Your task to perform on an android device: change the clock style Image 0: 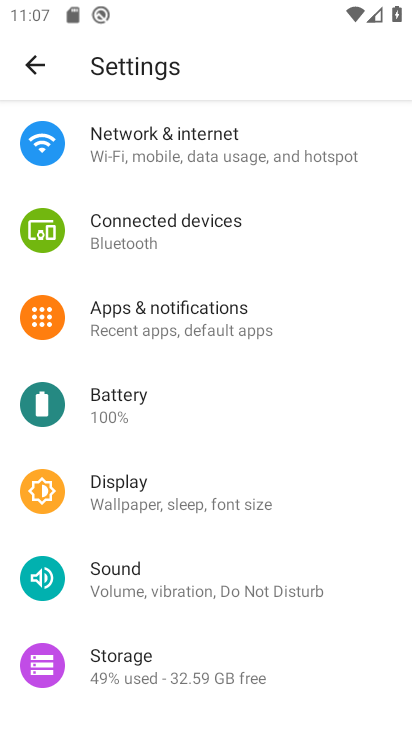
Step 0: press home button
Your task to perform on an android device: change the clock style Image 1: 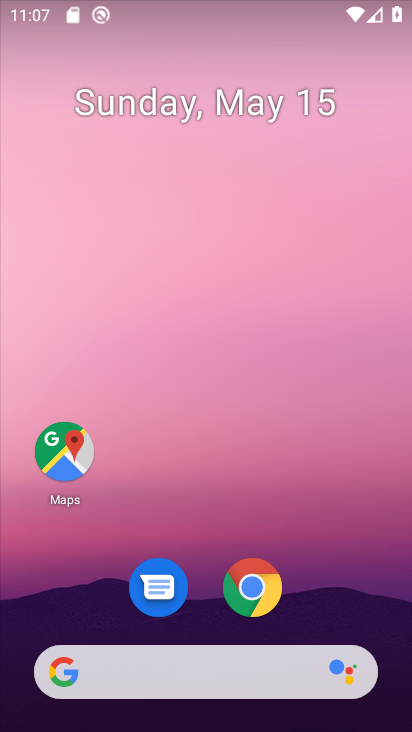
Step 1: drag from (201, 628) to (202, 248)
Your task to perform on an android device: change the clock style Image 2: 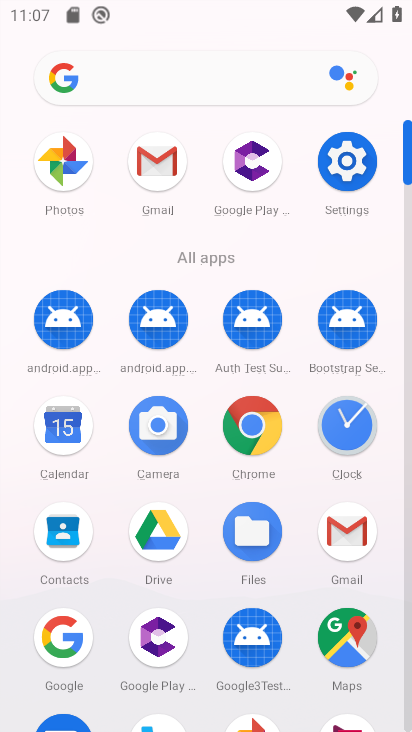
Step 2: click (353, 411)
Your task to perform on an android device: change the clock style Image 3: 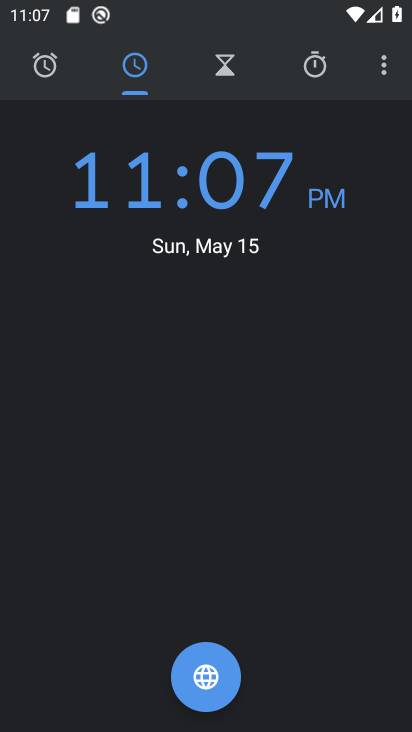
Step 3: click (389, 67)
Your task to perform on an android device: change the clock style Image 4: 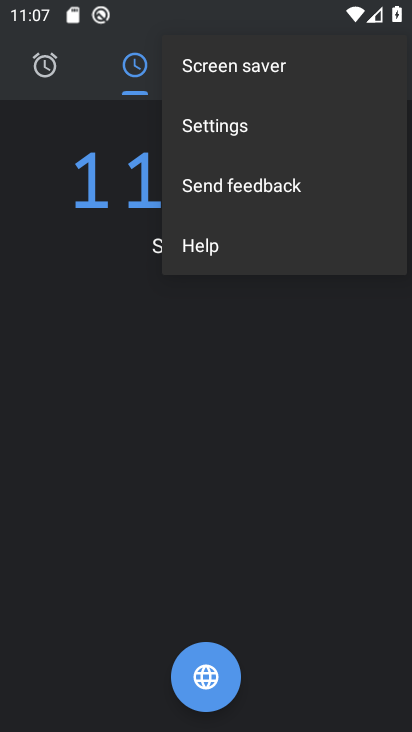
Step 4: click (230, 134)
Your task to perform on an android device: change the clock style Image 5: 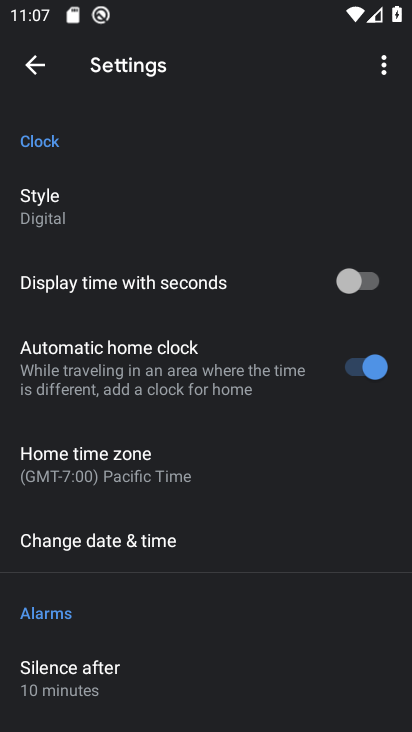
Step 5: click (32, 203)
Your task to perform on an android device: change the clock style Image 6: 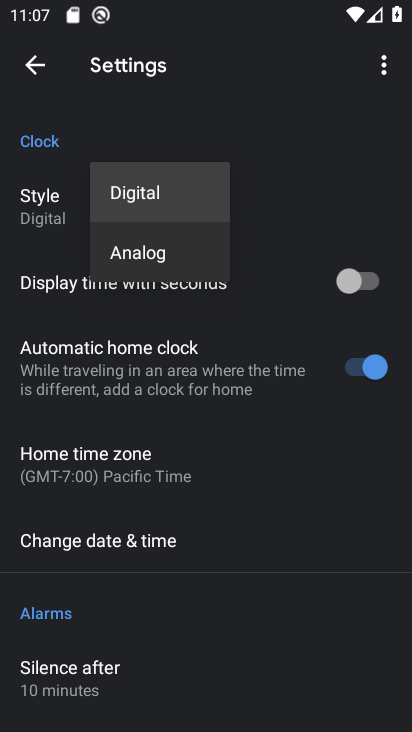
Step 6: click (114, 249)
Your task to perform on an android device: change the clock style Image 7: 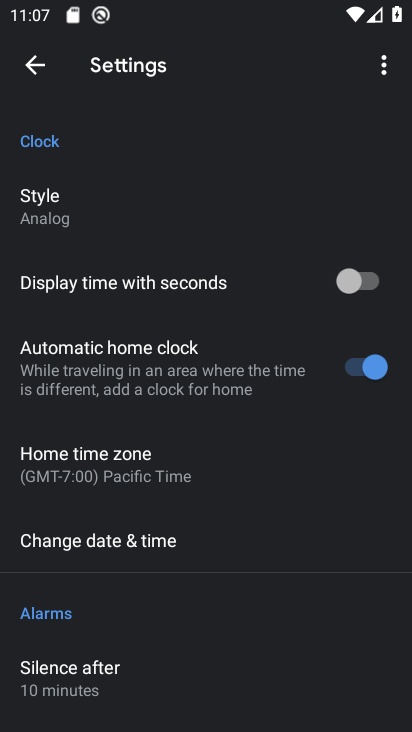
Step 7: task complete